Your task to perform on an android device: empty trash in the gmail app Image 0: 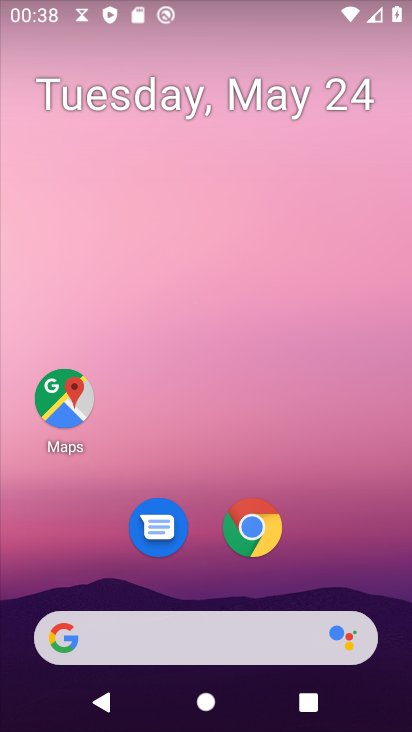
Step 0: press home button
Your task to perform on an android device: empty trash in the gmail app Image 1: 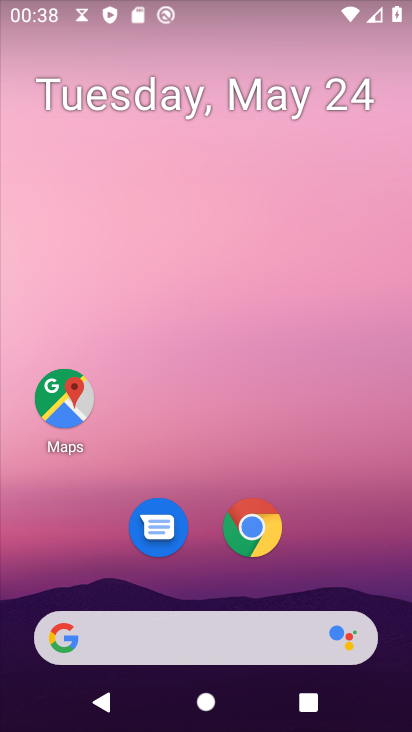
Step 1: drag from (214, 629) to (371, 86)
Your task to perform on an android device: empty trash in the gmail app Image 2: 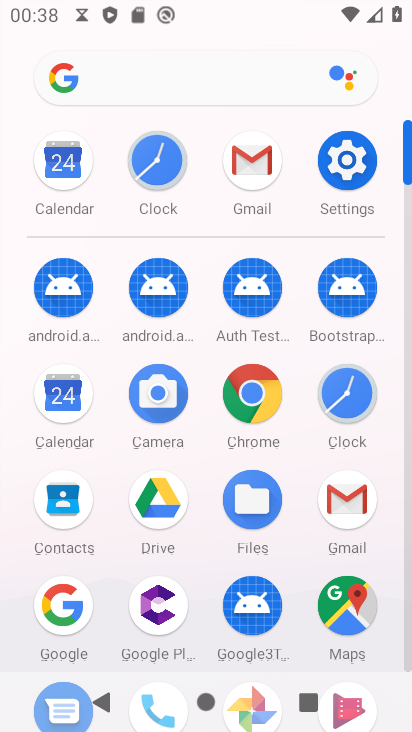
Step 2: click (249, 172)
Your task to perform on an android device: empty trash in the gmail app Image 3: 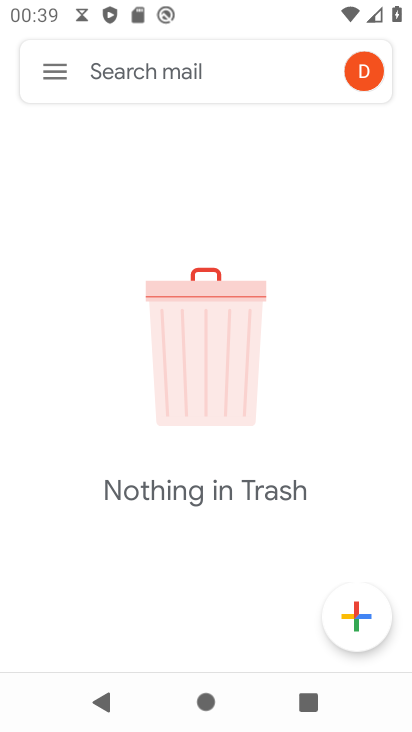
Step 3: task complete